Your task to perform on an android device: View the shopping cart on bestbuy. Image 0: 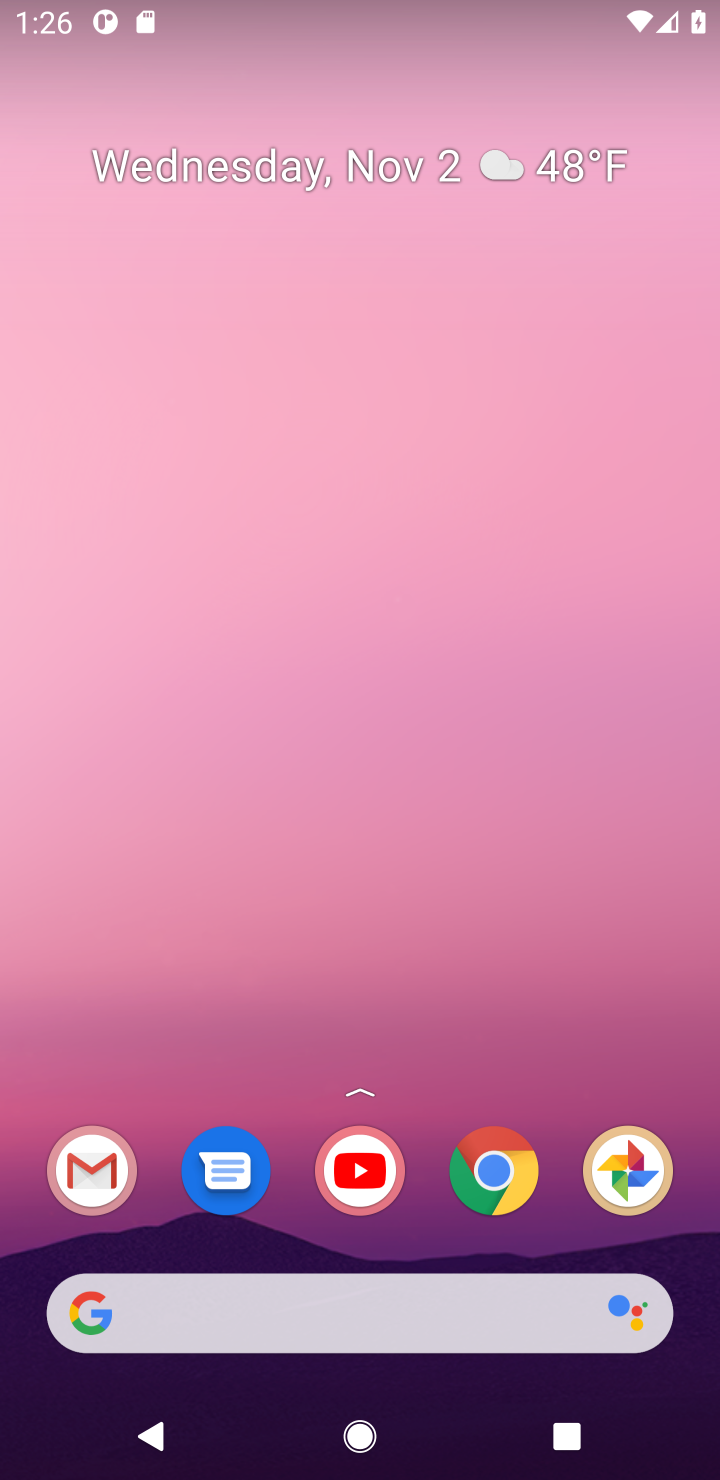
Step 0: press home button
Your task to perform on an android device: View the shopping cart on bestbuy. Image 1: 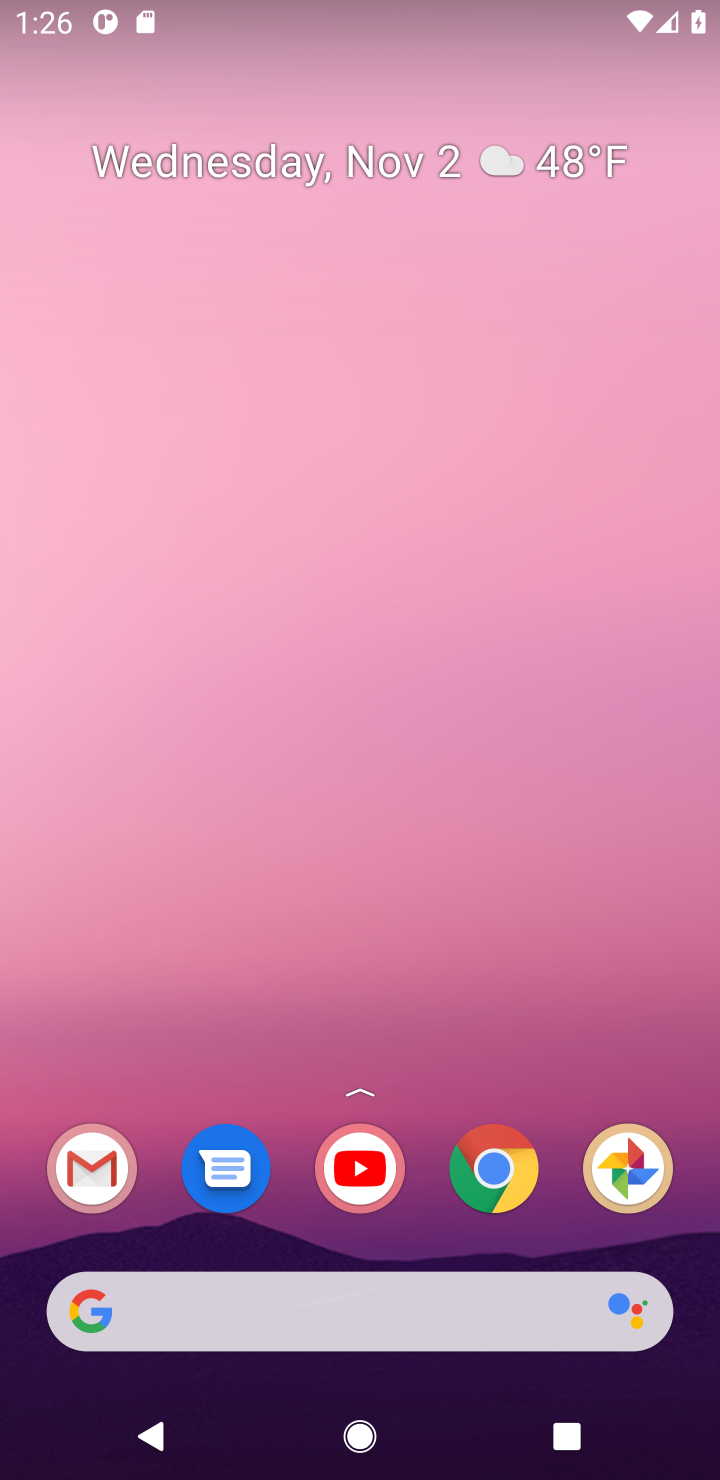
Step 1: click (420, 1321)
Your task to perform on an android device: View the shopping cart on bestbuy. Image 2: 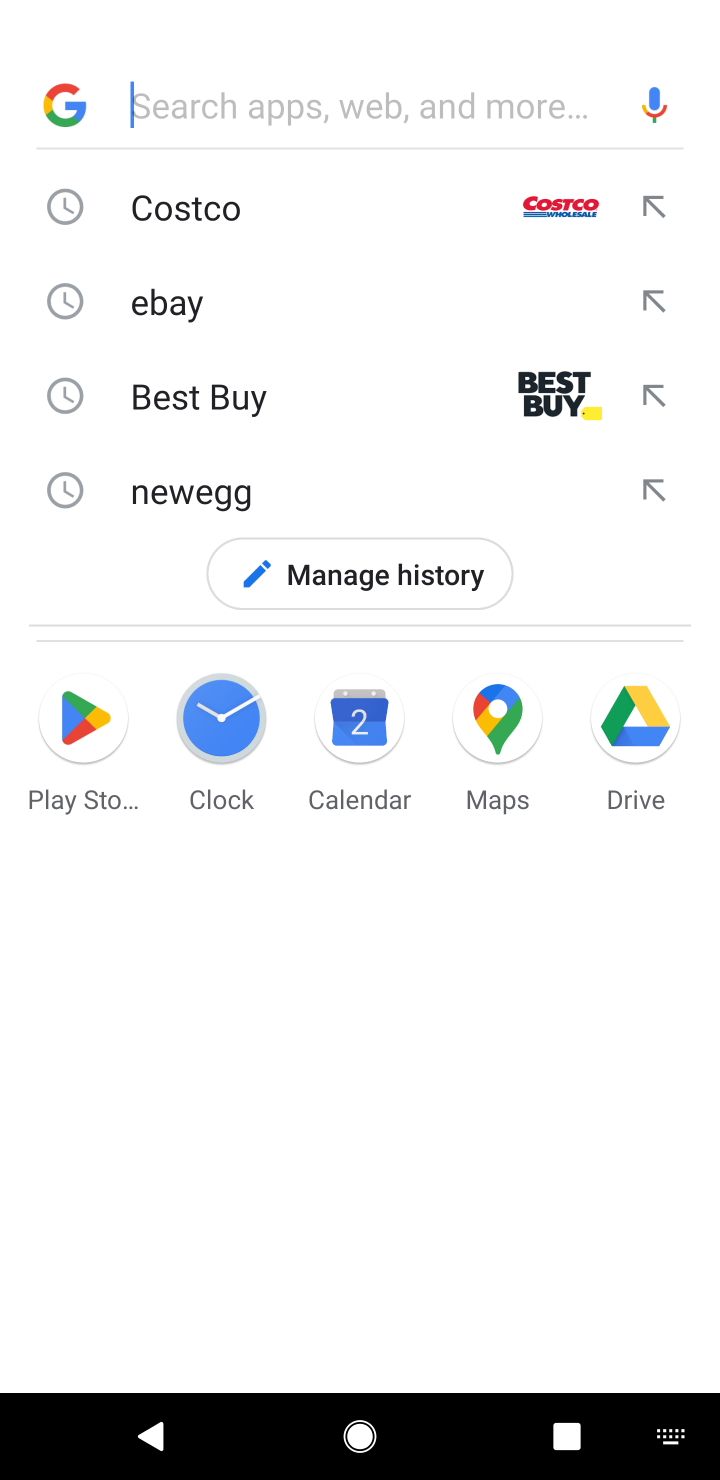
Step 2: type "bestbuy"
Your task to perform on an android device: View the shopping cart on bestbuy. Image 3: 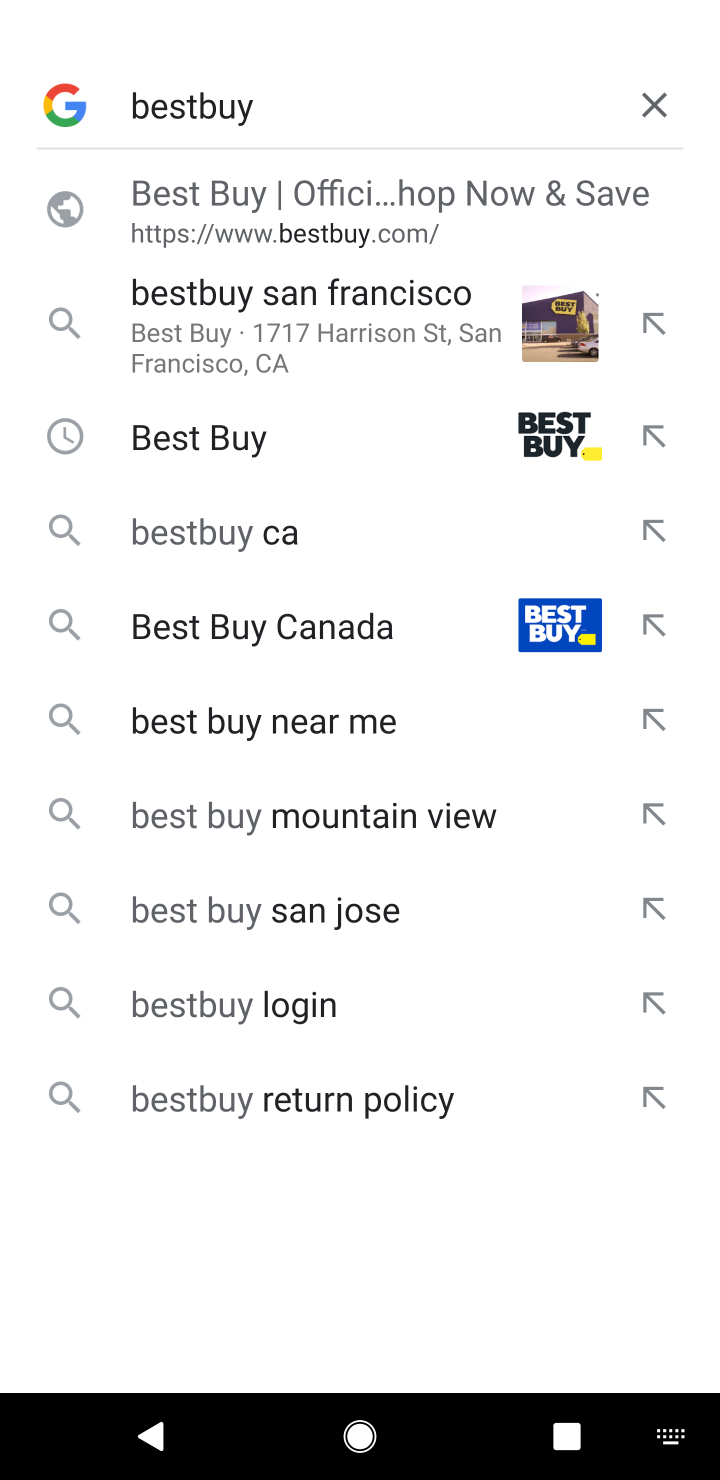
Step 3: click (335, 439)
Your task to perform on an android device: View the shopping cart on bestbuy. Image 4: 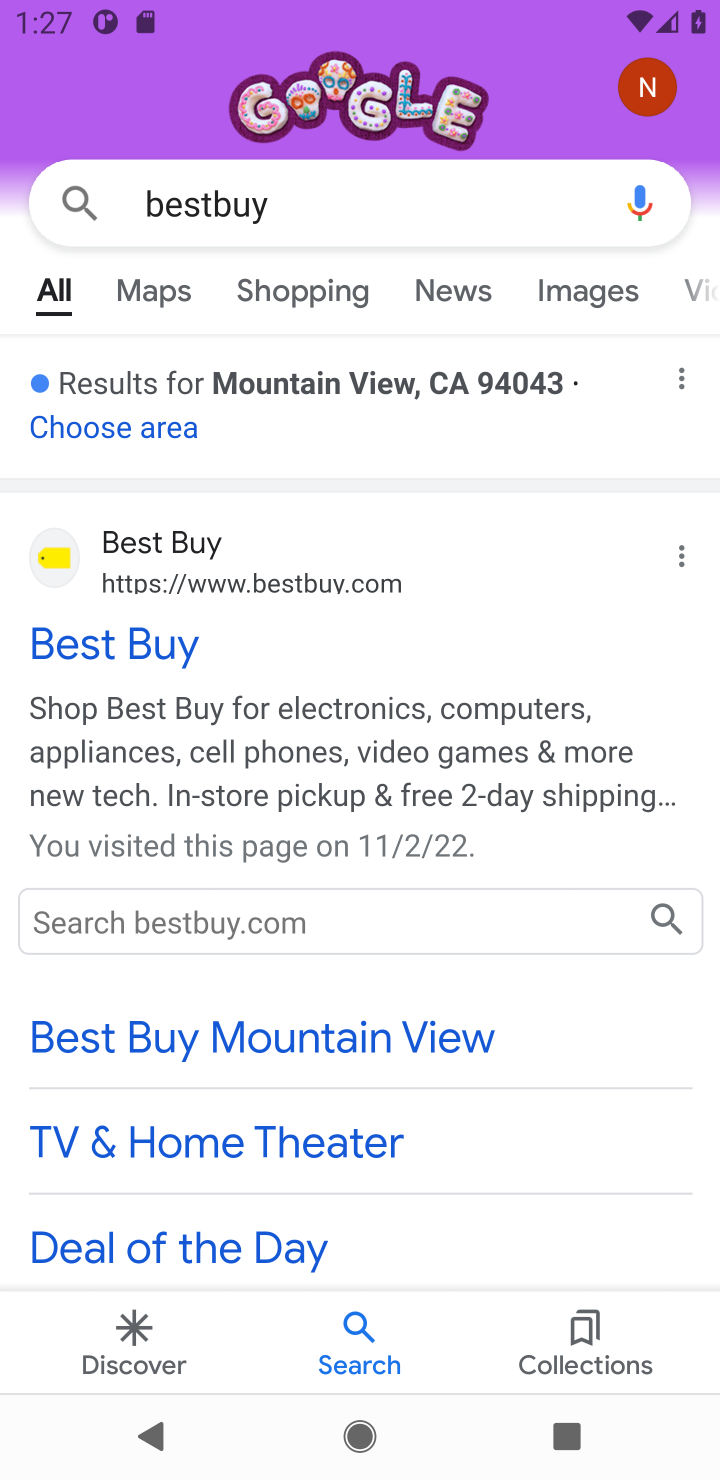
Step 4: click (192, 547)
Your task to perform on an android device: View the shopping cart on bestbuy. Image 5: 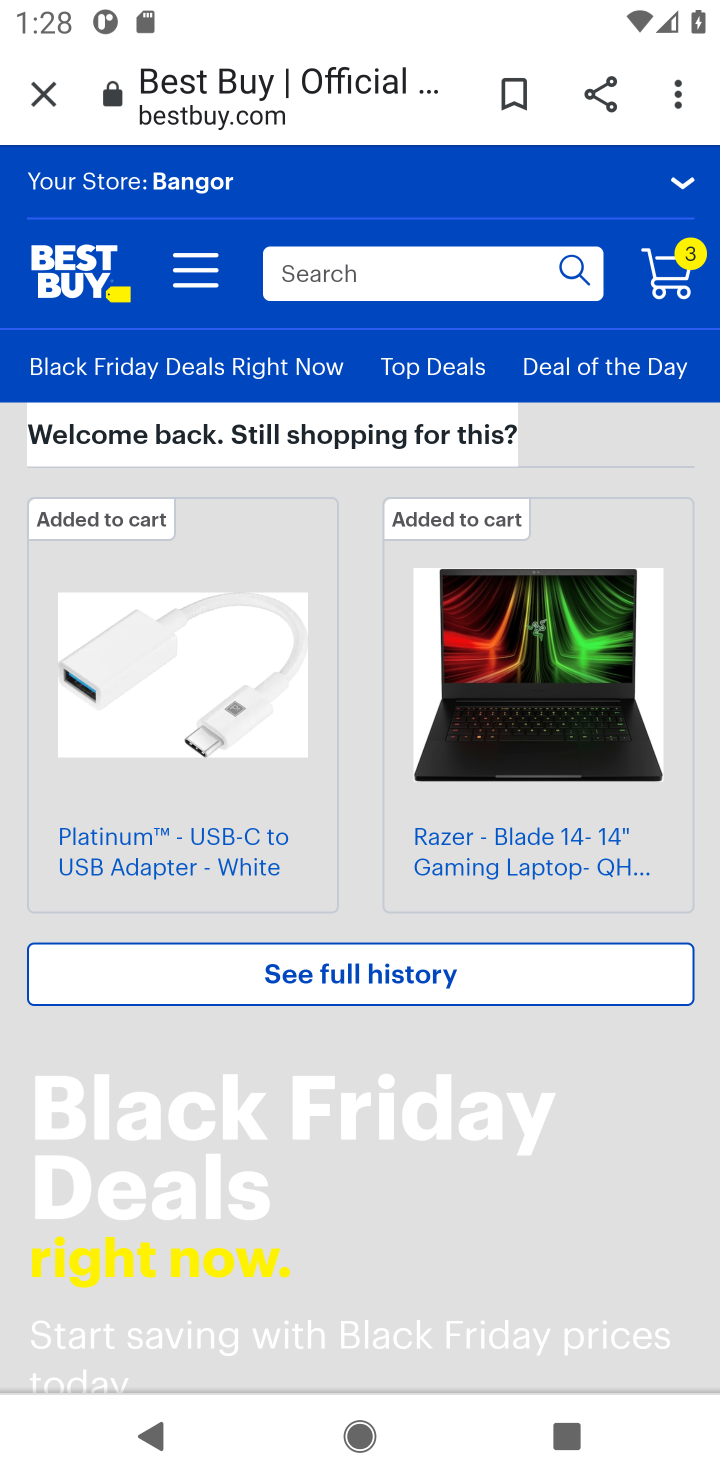
Step 5: click (674, 275)
Your task to perform on an android device: View the shopping cart on bestbuy. Image 6: 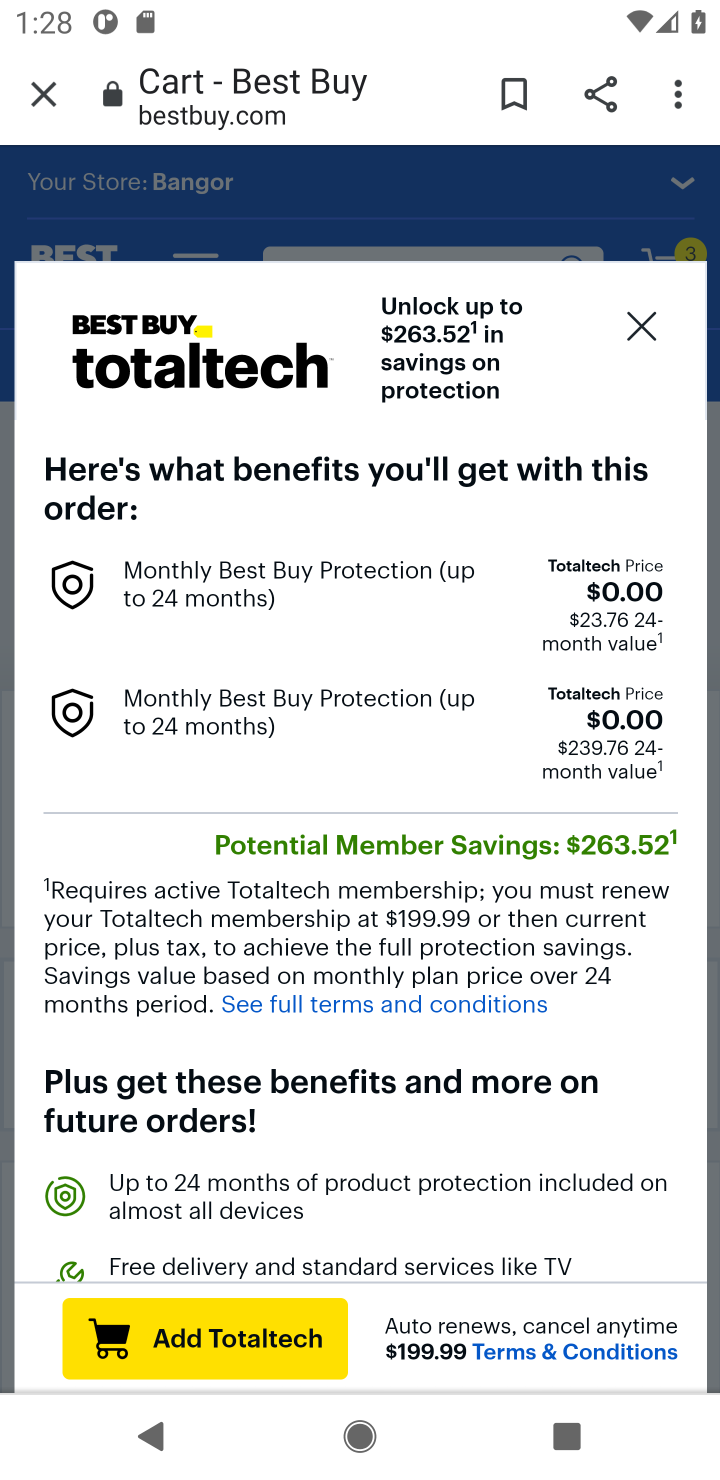
Step 6: click (642, 329)
Your task to perform on an android device: View the shopping cart on bestbuy. Image 7: 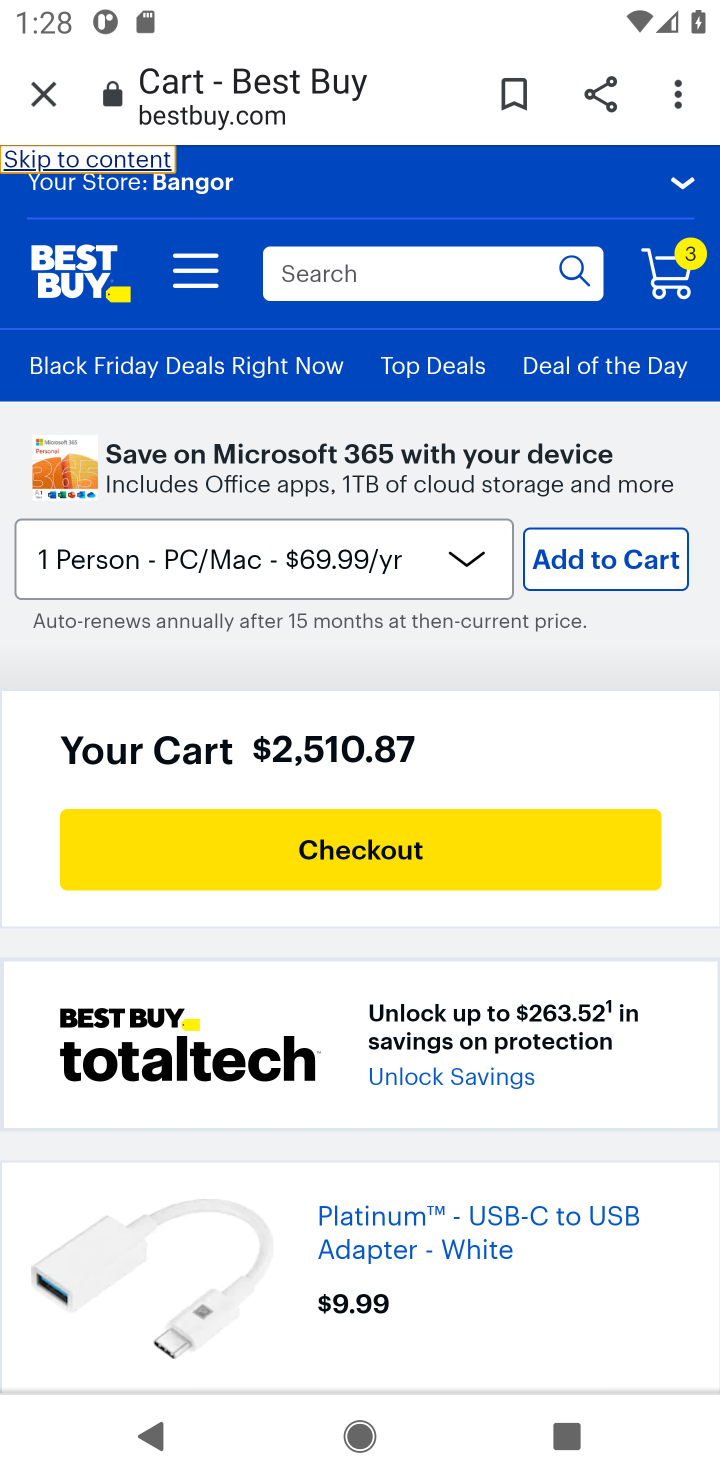
Step 7: task complete